Your task to perform on an android device: Go to ESPN.com Image 0: 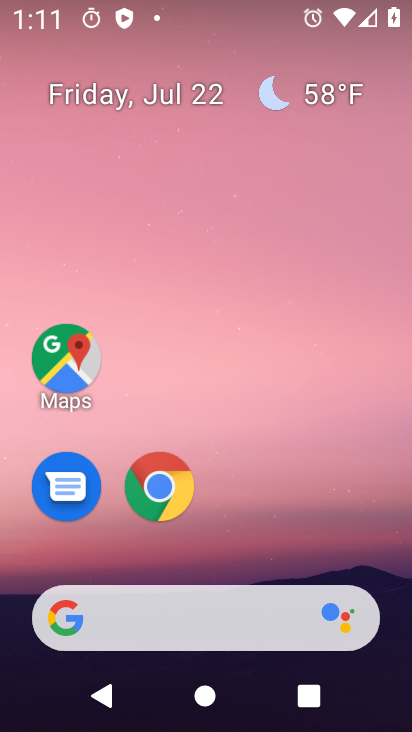
Step 0: press home button
Your task to perform on an android device: Go to ESPN.com Image 1: 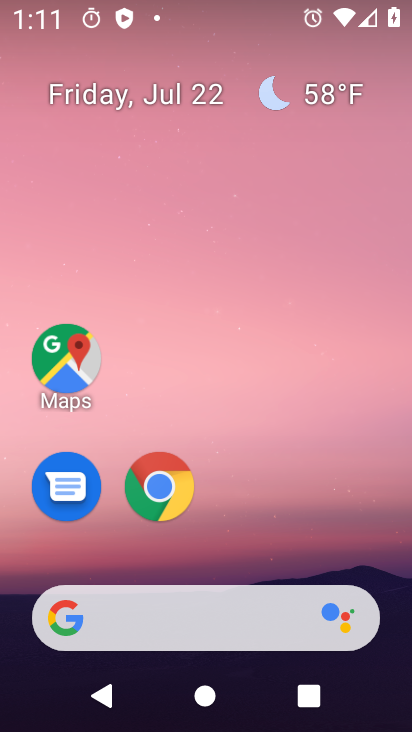
Step 1: drag from (377, 535) to (385, 128)
Your task to perform on an android device: Go to ESPN.com Image 2: 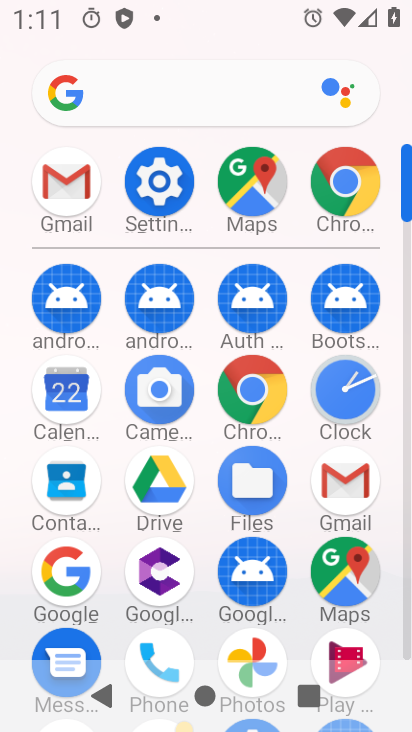
Step 2: click (257, 385)
Your task to perform on an android device: Go to ESPN.com Image 3: 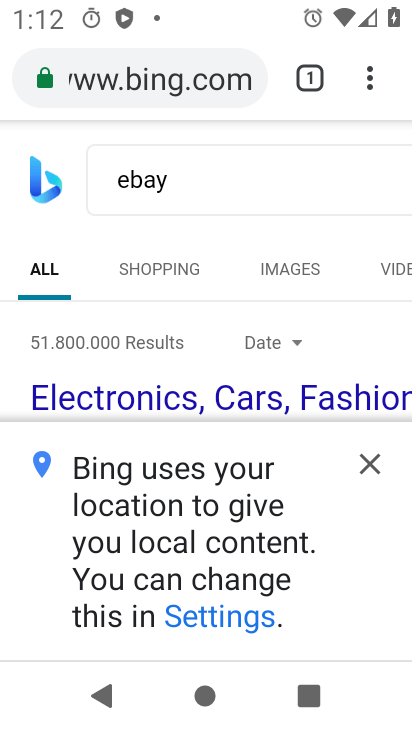
Step 3: click (227, 84)
Your task to perform on an android device: Go to ESPN.com Image 4: 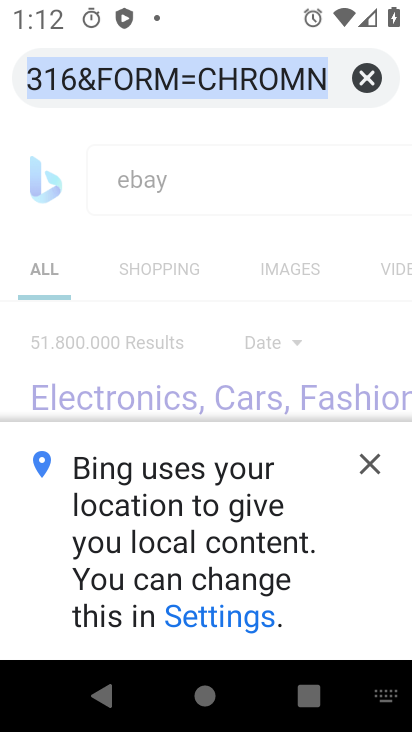
Step 4: type "espn.com"
Your task to perform on an android device: Go to ESPN.com Image 5: 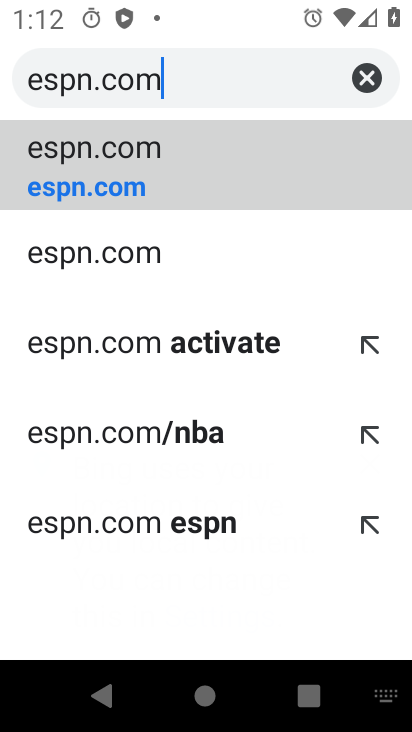
Step 5: click (207, 160)
Your task to perform on an android device: Go to ESPN.com Image 6: 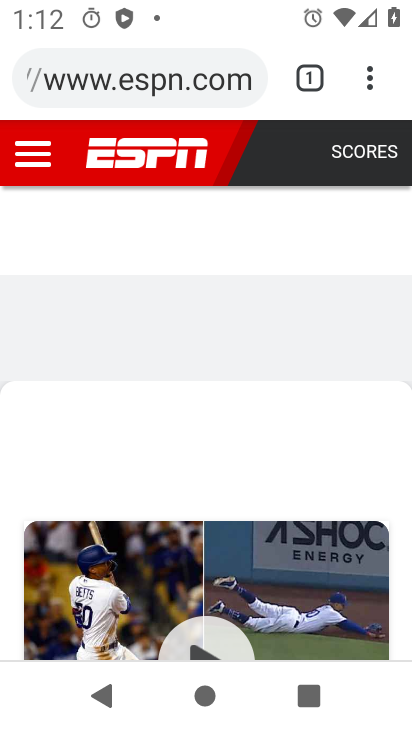
Step 6: task complete